Your task to perform on an android device: Go to network settings Image 0: 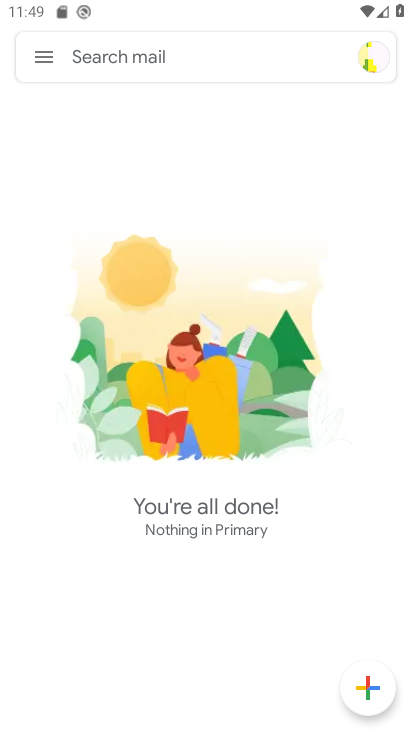
Step 0: drag from (291, 649) to (410, 148)
Your task to perform on an android device: Go to network settings Image 1: 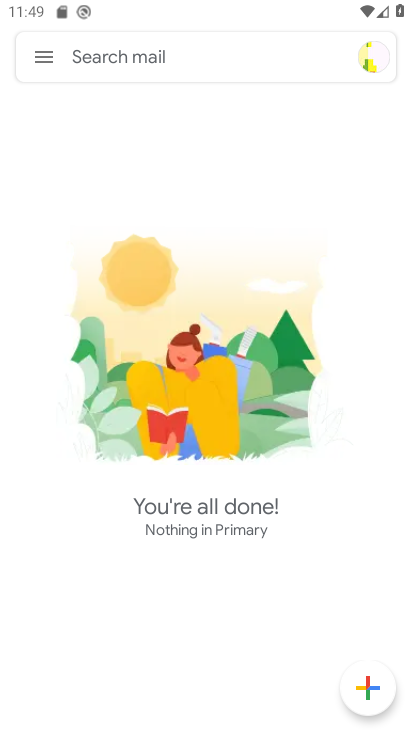
Step 1: press home button
Your task to perform on an android device: Go to network settings Image 2: 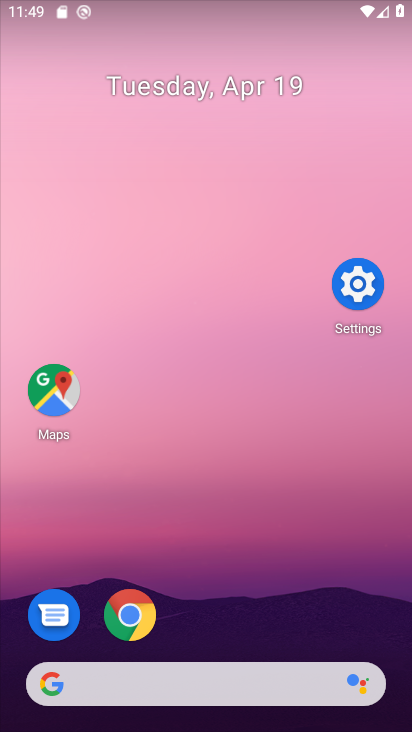
Step 2: click (366, 288)
Your task to perform on an android device: Go to network settings Image 3: 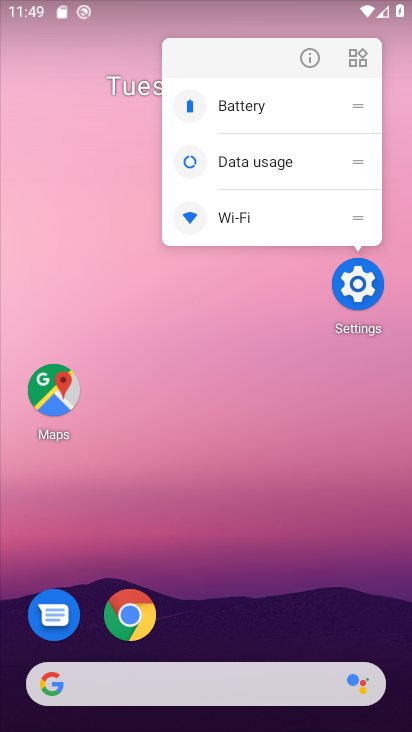
Step 3: click (313, 55)
Your task to perform on an android device: Go to network settings Image 4: 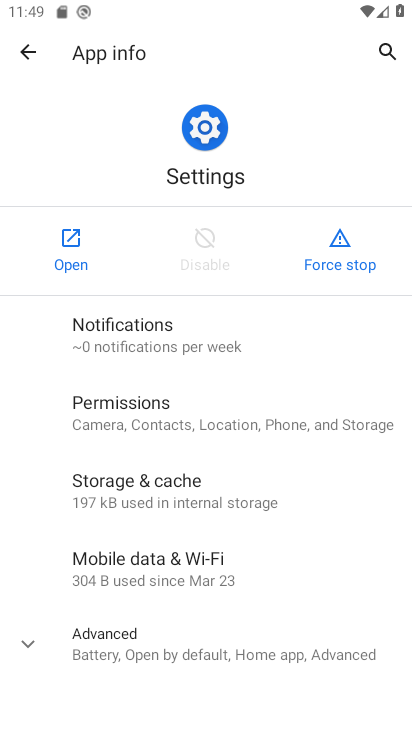
Step 4: click (68, 242)
Your task to perform on an android device: Go to network settings Image 5: 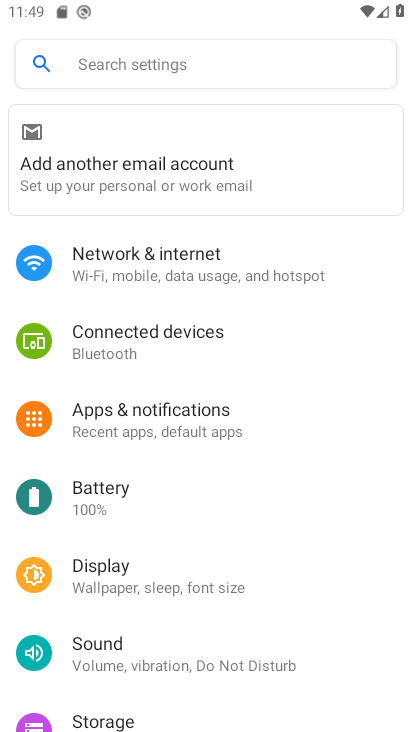
Step 5: click (162, 265)
Your task to perform on an android device: Go to network settings Image 6: 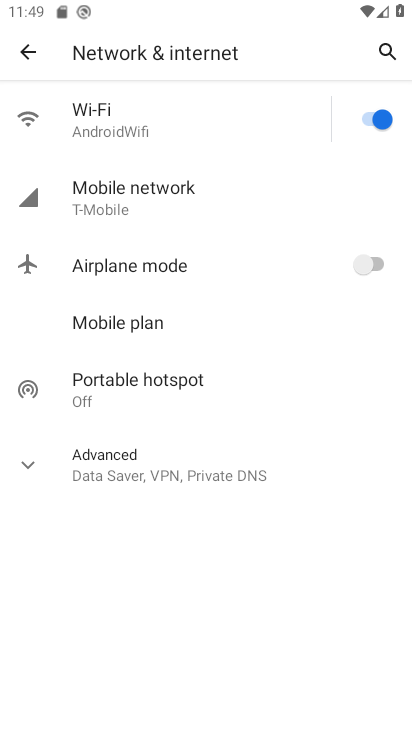
Step 6: task complete